Your task to perform on an android device: open a new tab in the chrome app Image 0: 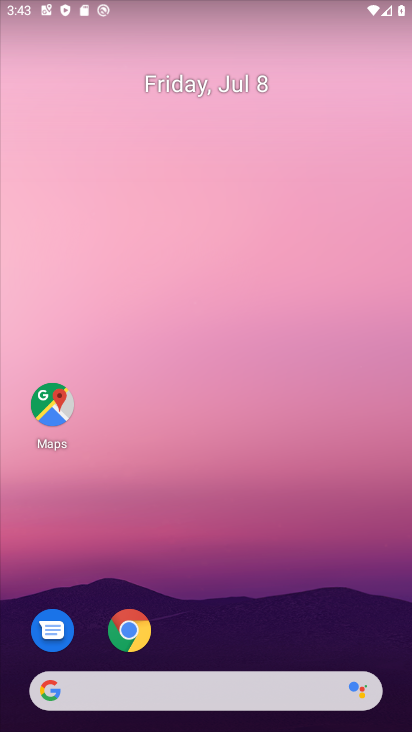
Step 0: click (142, 632)
Your task to perform on an android device: open a new tab in the chrome app Image 1: 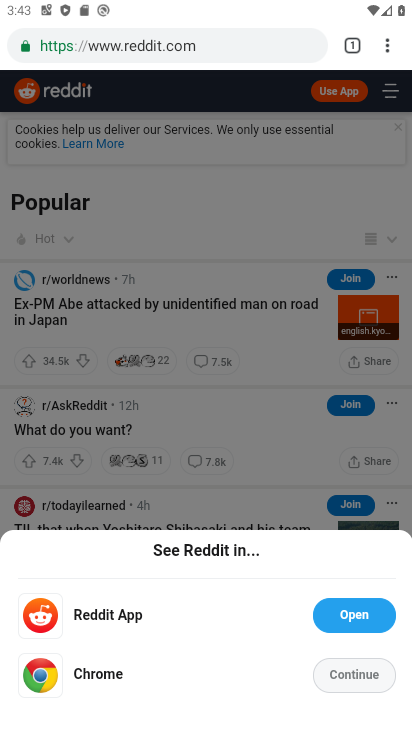
Step 1: click (384, 47)
Your task to perform on an android device: open a new tab in the chrome app Image 2: 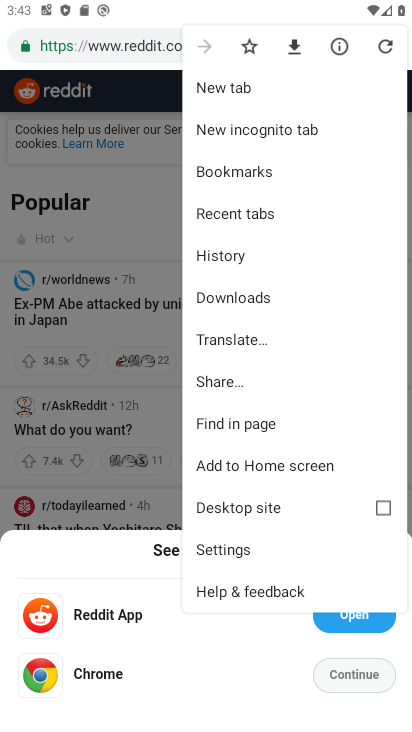
Step 2: click (251, 91)
Your task to perform on an android device: open a new tab in the chrome app Image 3: 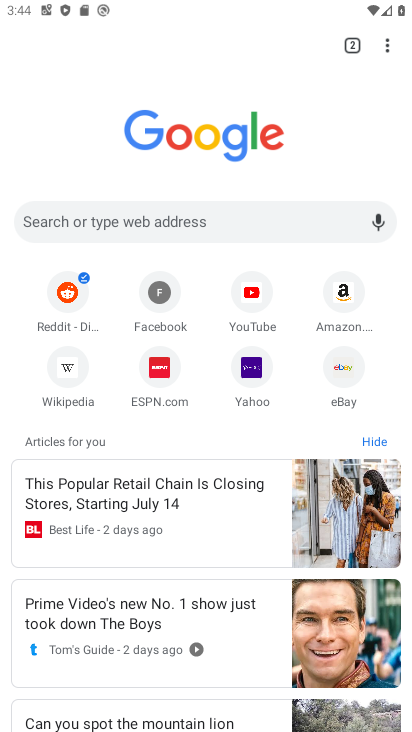
Step 3: task complete